Your task to perform on an android device: Play the last video I watched on Youtube Image 0: 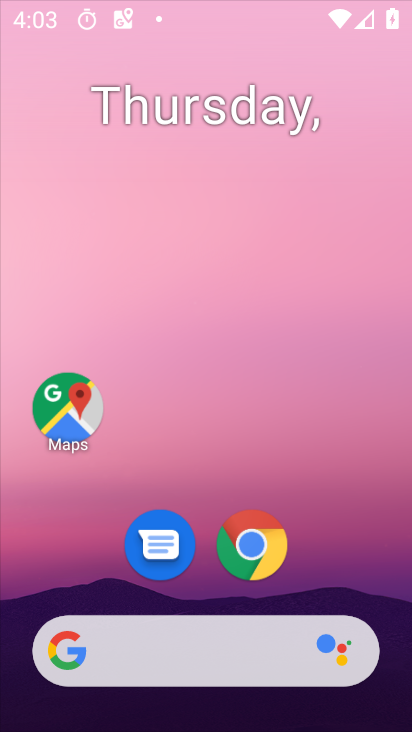
Step 0: drag from (237, 699) to (205, 205)
Your task to perform on an android device: Play the last video I watched on Youtube Image 1: 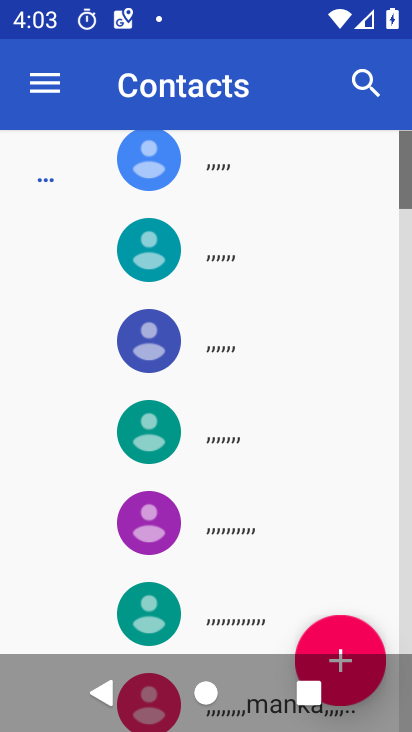
Step 1: press home button
Your task to perform on an android device: Play the last video I watched on Youtube Image 2: 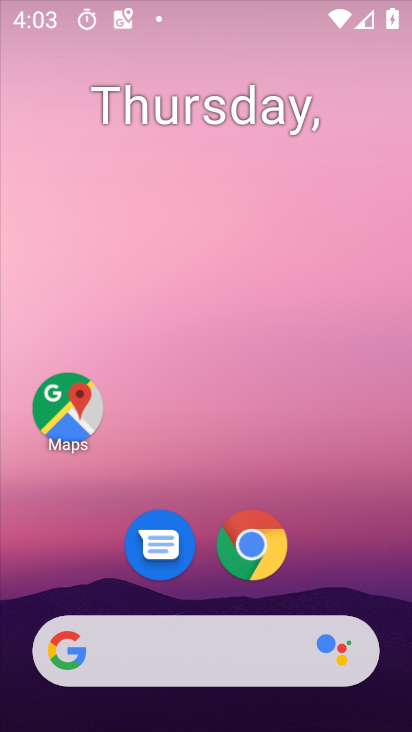
Step 2: drag from (206, 720) to (186, 253)
Your task to perform on an android device: Play the last video I watched on Youtube Image 3: 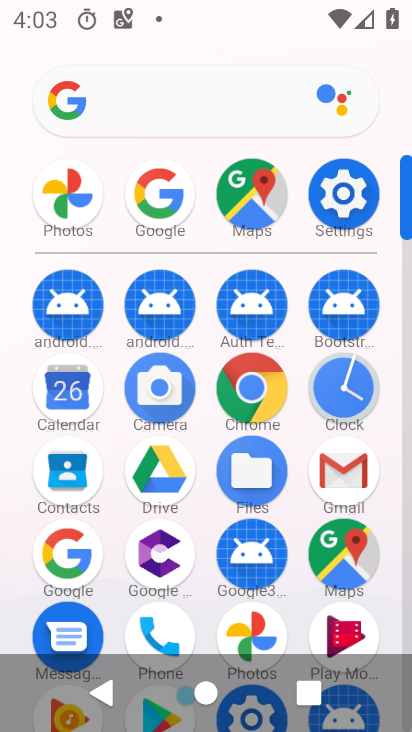
Step 3: drag from (285, 609) to (259, 209)
Your task to perform on an android device: Play the last video I watched on Youtube Image 4: 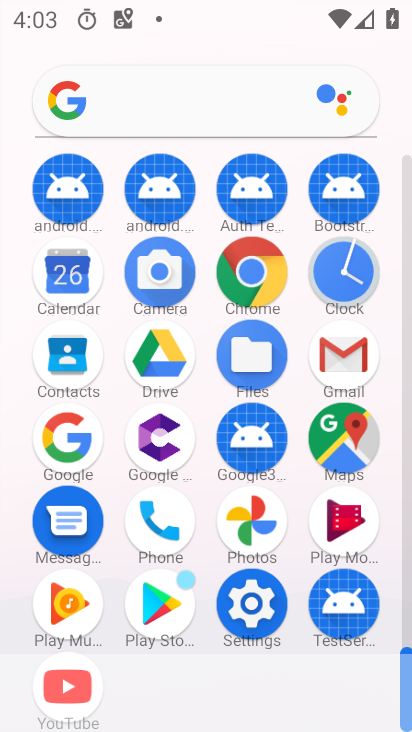
Step 4: click (61, 687)
Your task to perform on an android device: Play the last video I watched on Youtube Image 5: 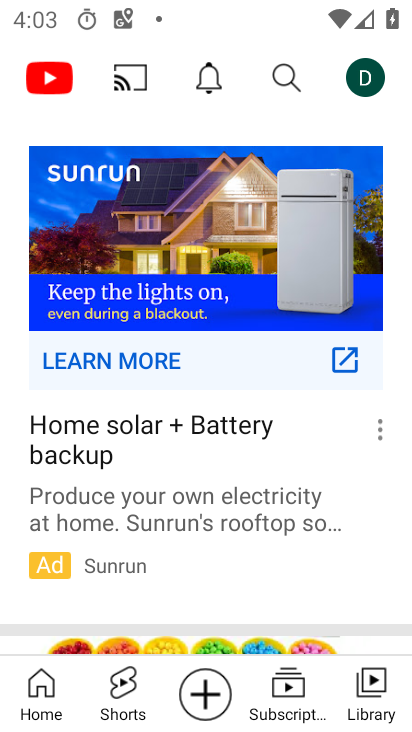
Step 5: click (363, 689)
Your task to perform on an android device: Play the last video I watched on Youtube Image 6: 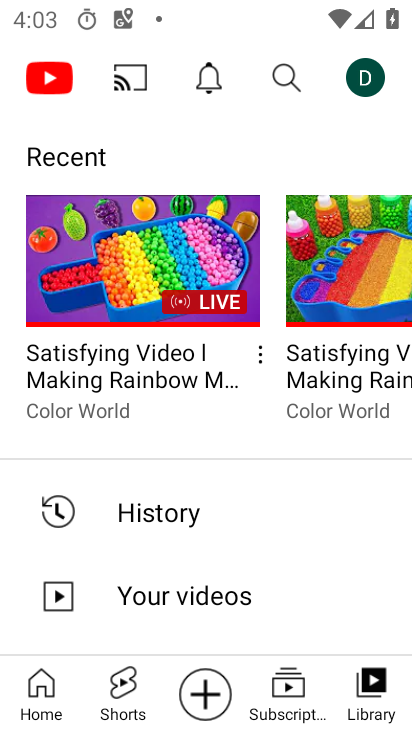
Step 6: click (141, 287)
Your task to perform on an android device: Play the last video I watched on Youtube Image 7: 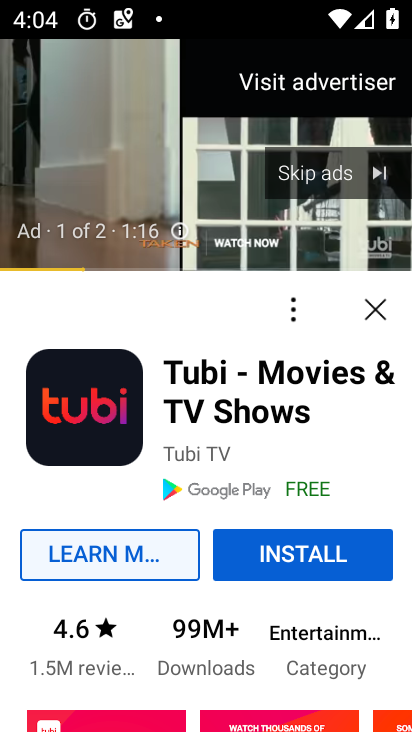
Step 7: click (339, 175)
Your task to perform on an android device: Play the last video I watched on Youtube Image 8: 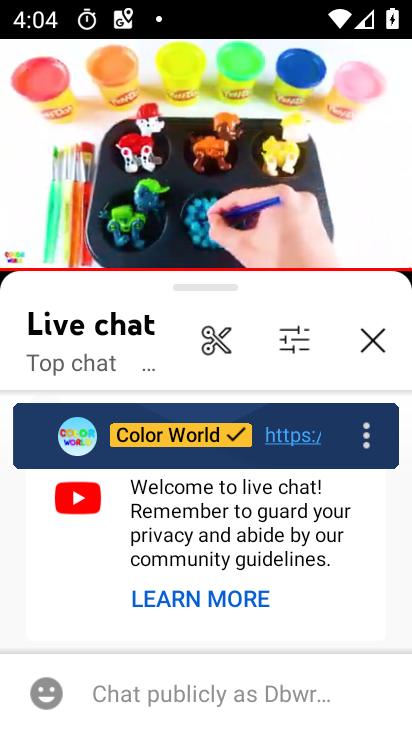
Step 8: click (371, 329)
Your task to perform on an android device: Play the last video I watched on Youtube Image 9: 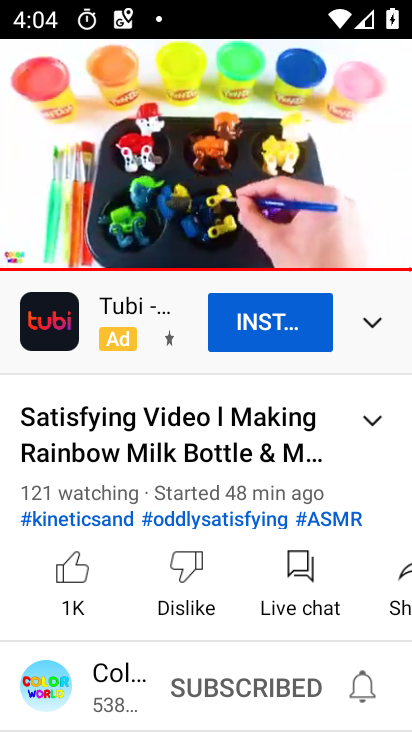
Step 9: task complete